Your task to perform on an android device: Go to Maps Image 0: 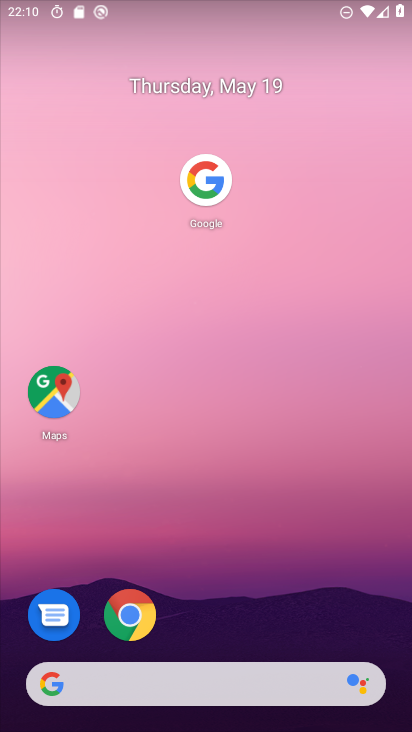
Step 0: click (56, 393)
Your task to perform on an android device: Go to Maps Image 1: 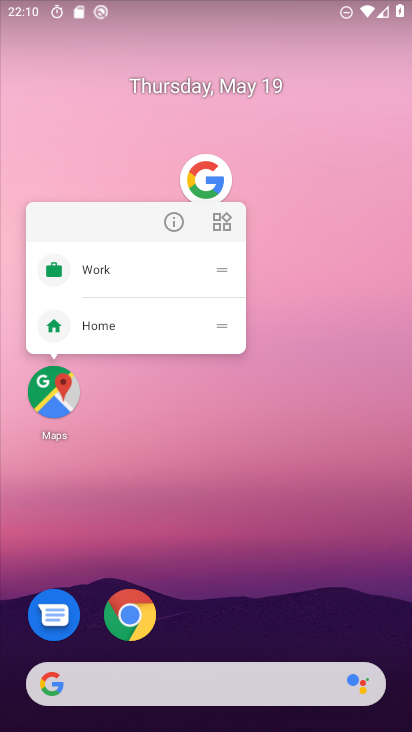
Step 1: click (58, 393)
Your task to perform on an android device: Go to Maps Image 2: 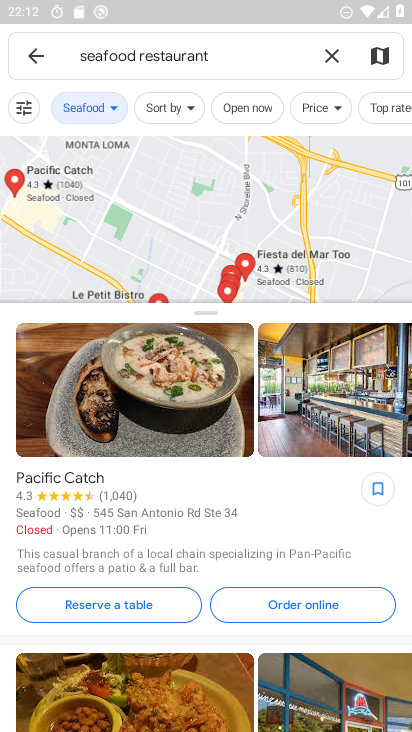
Step 2: task complete